Your task to perform on an android device: turn on the 24-hour format for clock Image 0: 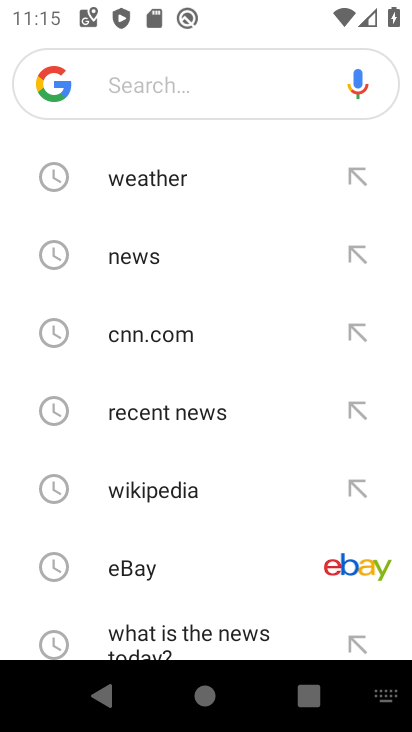
Step 0: press home button
Your task to perform on an android device: turn on the 24-hour format for clock Image 1: 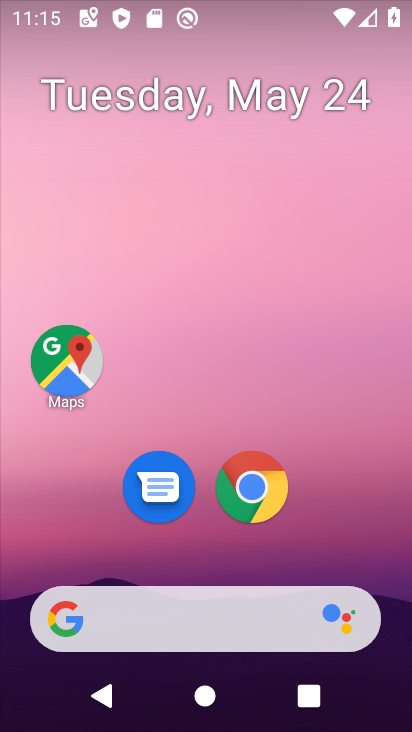
Step 1: drag from (193, 505) to (254, 72)
Your task to perform on an android device: turn on the 24-hour format for clock Image 2: 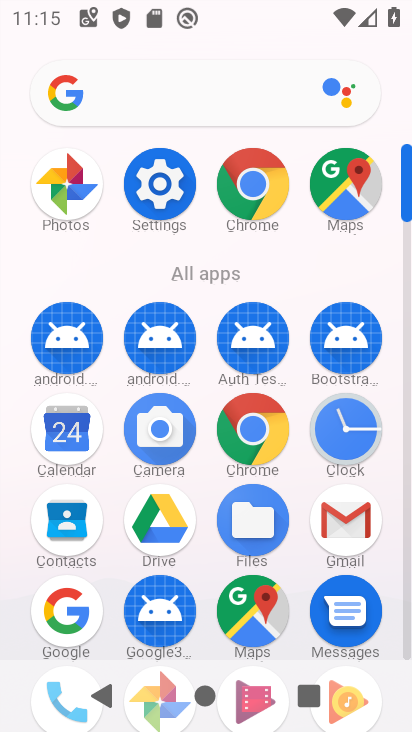
Step 2: click (351, 433)
Your task to perform on an android device: turn on the 24-hour format for clock Image 3: 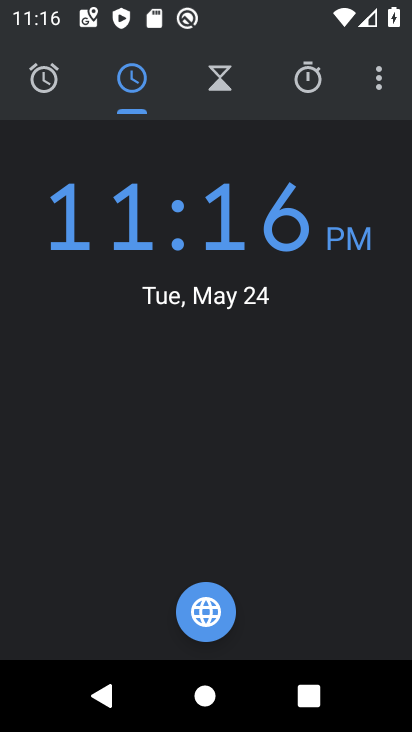
Step 3: click (372, 76)
Your task to perform on an android device: turn on the 24-hour format for clock Image 4: 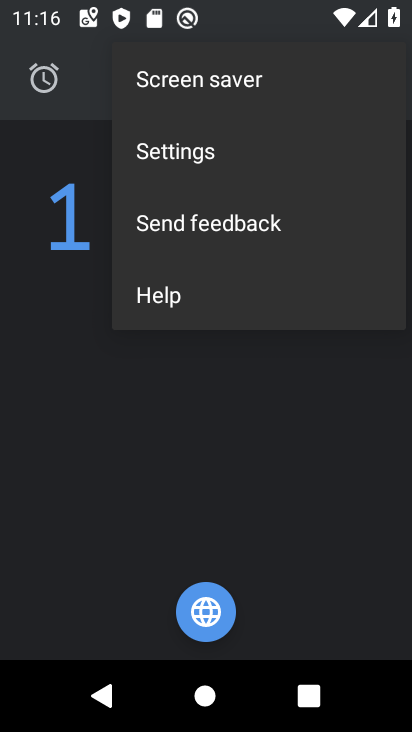
Step 4: click (214, 134)
Your task to perform on an android device: turn on the 24-hour format for clock Image 5: 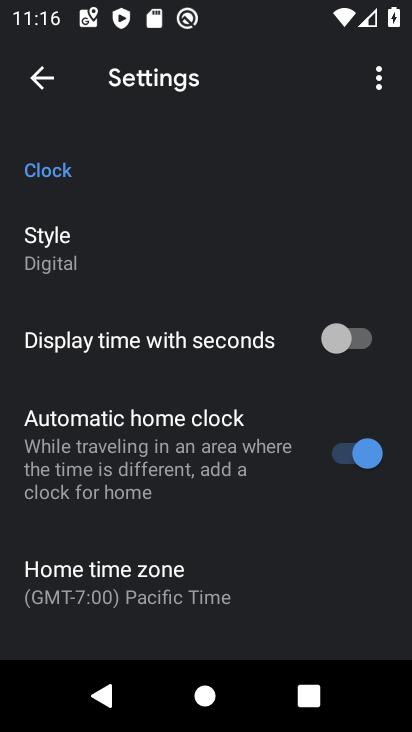
Step 5: drag from (159, 576) to (216, 61)
Your task to perform on an android device: turn on the 24-hour format for clock Image 6: 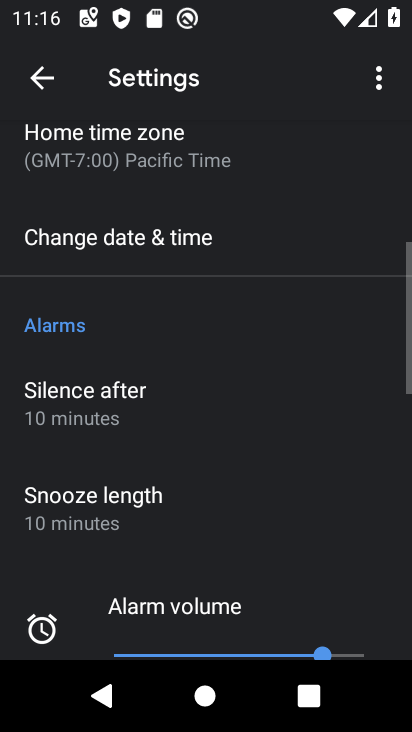
Step 6: click (70, 235)
Your task to perform on an android device: turn on the 24-hour format for clock Image 7: 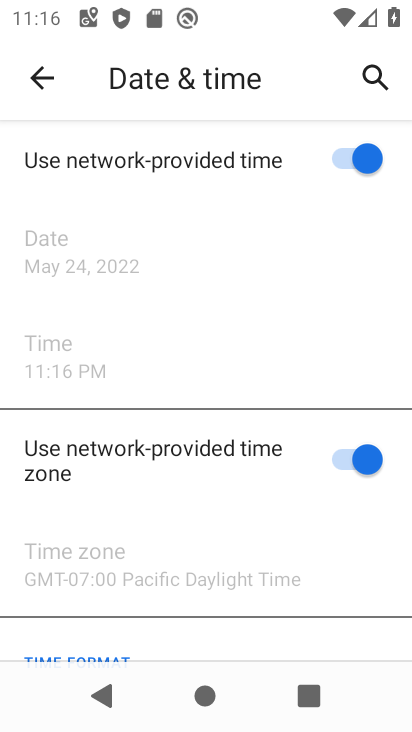
Step 7: drag from (197, 557) to (251, 61)
Your task to perform on an android device: turn on the 24-hour format for clock Image 8: 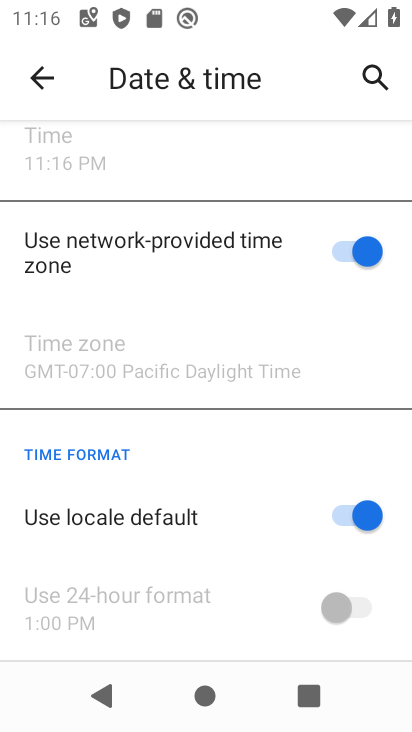
Step 8: click (344, 516)
Your task to perform on an android device: turn on the 24-hour format for clock Image 9: 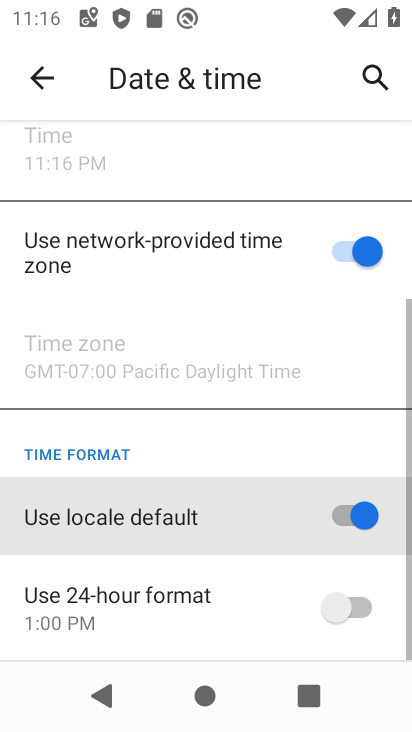
Step 9: click (337, 607)
Your task to perform on an android device: turn on the 24-hour format for clock Image 10: 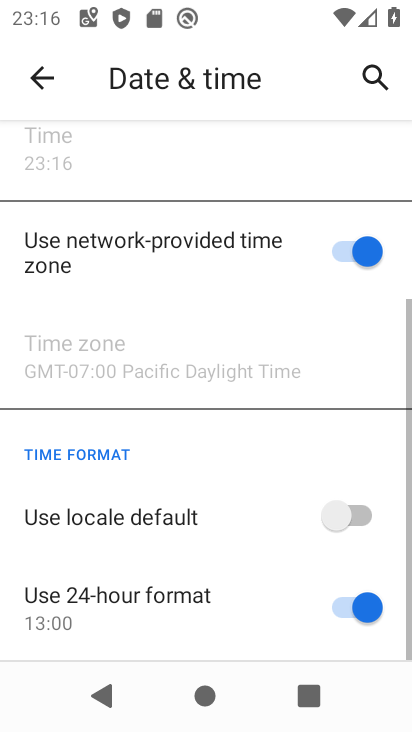
Step 10: task complete